Your task to perform on an android device: manage bookmarks in the chrome app Image 0: 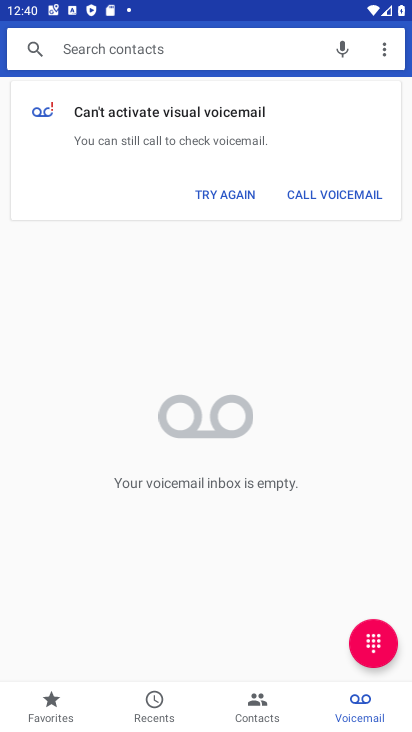
Step 0: press home button
Your task to perform on an android device: manage bookmarks in the chrome app Image 1: 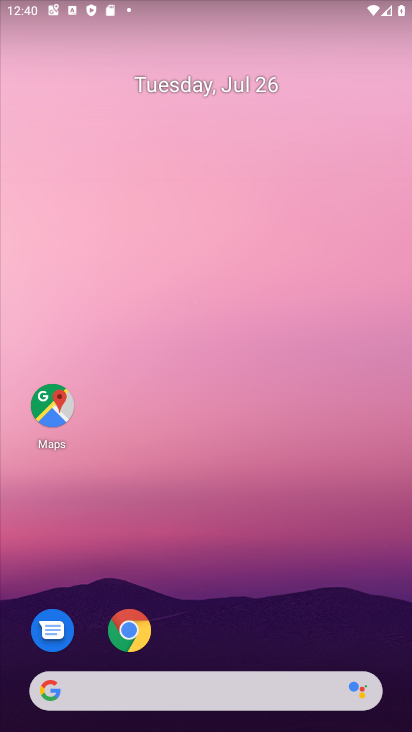
Step 1: click (131, 631)
Your task to perform on an android device: manage bookmarks in the chrome app Image 2: 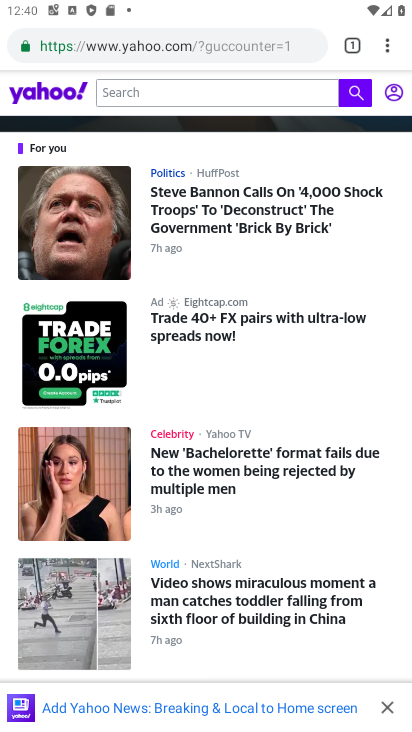
Step 2: click (385, 51)
Your task to perform on an android device: manage bookmarks in the chrome app Image 3: 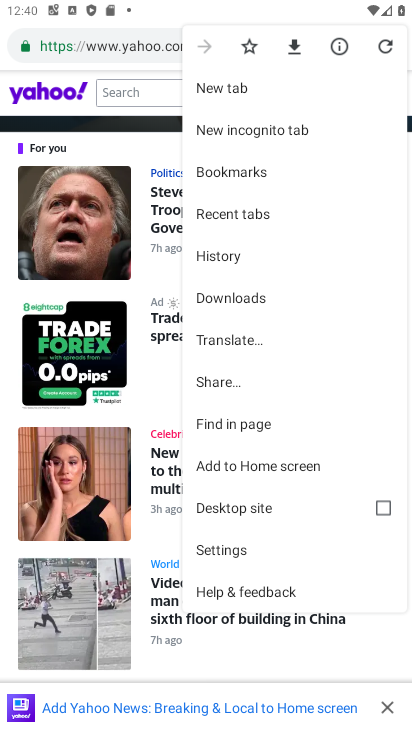
Step 3: click (230, 168)
Your task to perform on an android device: manage bookmarks in the chrome app Image 4: 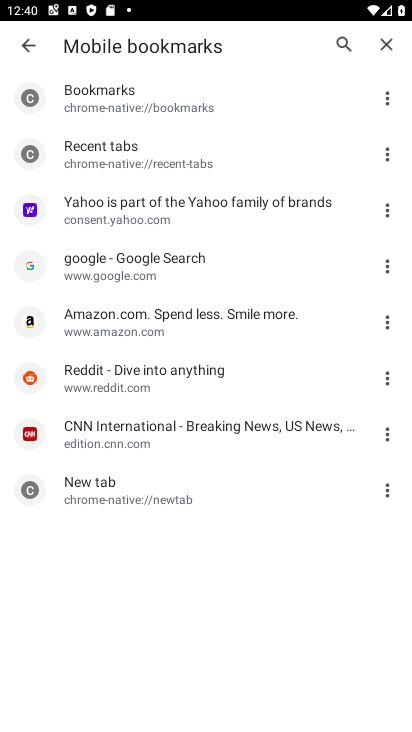
Step 4: click (87, 373)
Your task to perform on an android device: manage bookmarks in the chrome app Image 5: 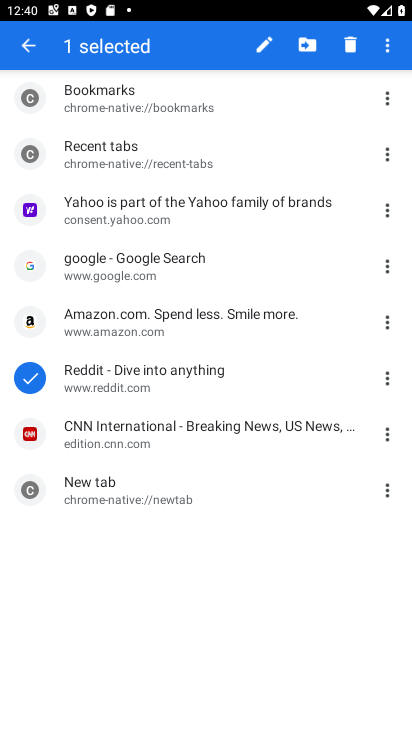
Step 5: click (303, 44)
Your task to perform on an android device: manage bookmarks in the chrome app Image 6: 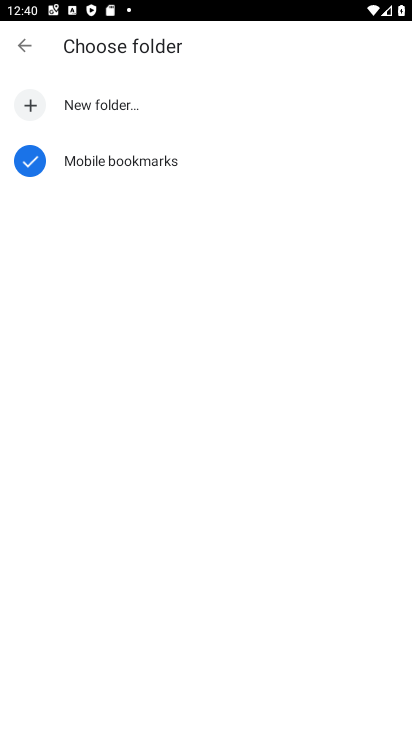
Step 6: click (31, 106)
Your task to perform on an android device: manage bookmarks in the chrome app Image 7: 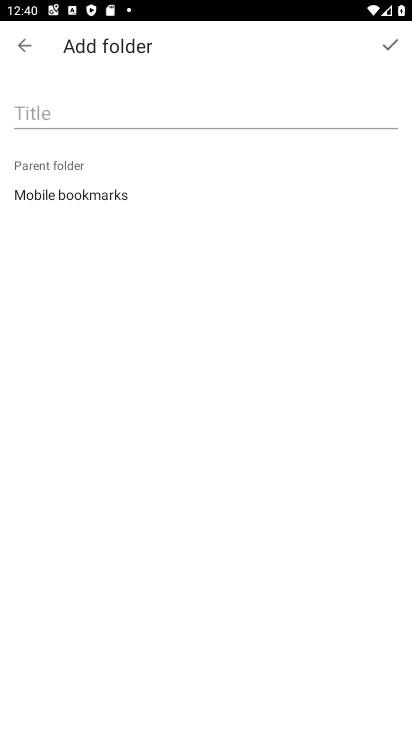
Step 7: click (69, 123)
Your task to perform on an android device: manage bookmarks in the chrome app Image 8: 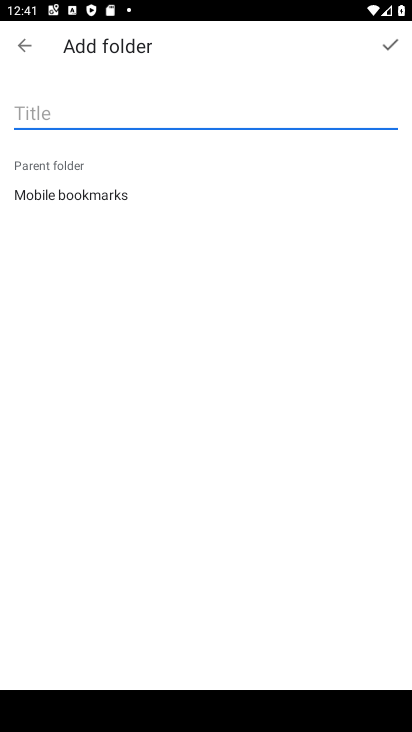
Step 8: type "jihyui"
Your task to perform on an android device: manage bookmarks in the chrome app Image 9: 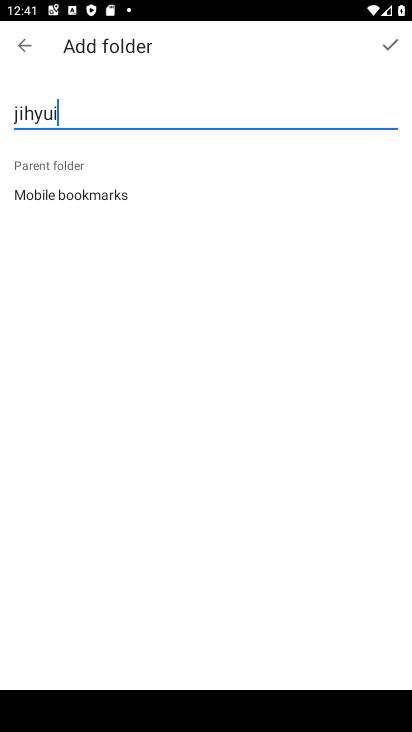
Step 9: click (389, 42)
Your task to perform on an android device: manage bookmarks in the chrome app Image 10: 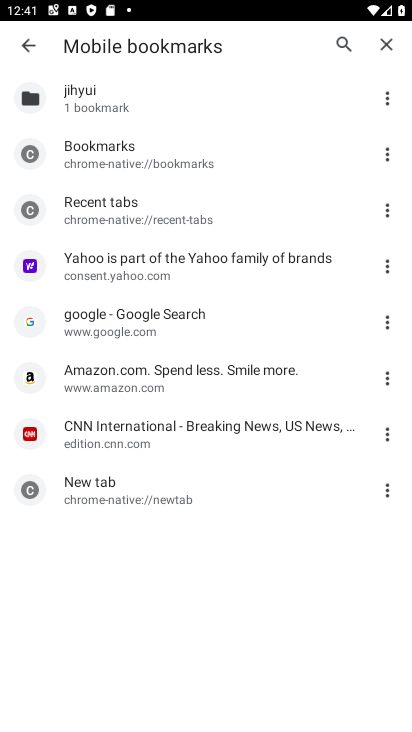
Step 10: task complete